Your task to perform on an android device: Is it going to rain this weekend? Image 0: 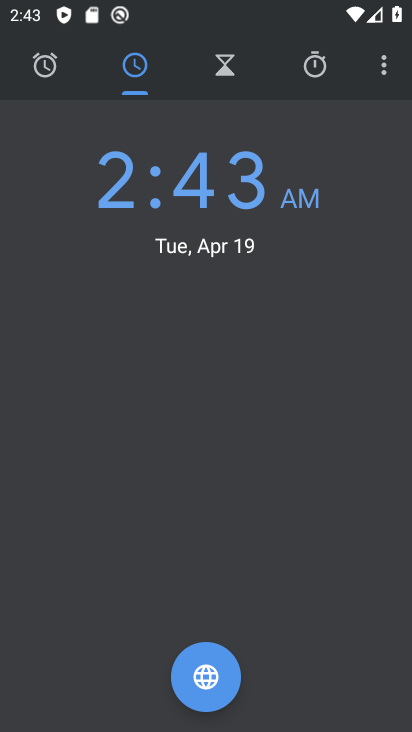
Step 0: press home button
Your task to perform on an android device: Is it going to rain this weekend? Image 1: 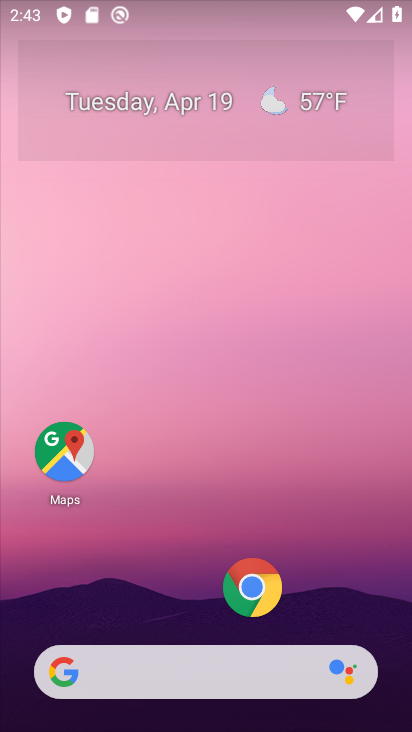
Step 1: click (323, 103)
Your task to perform on an android device: Is it going to rain this weekend? Image 2: 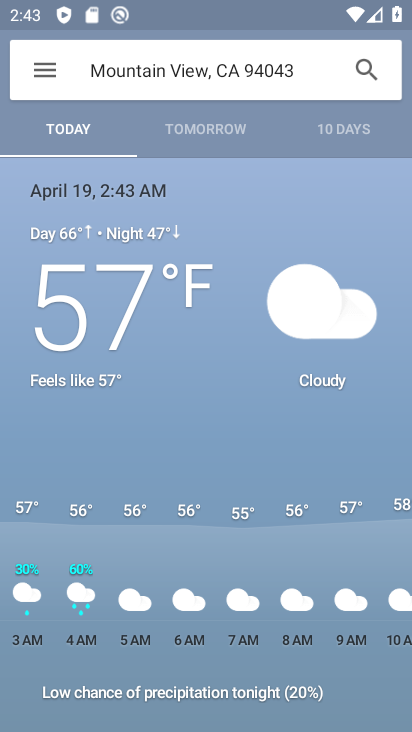
Step 2: click (326, 122)
Your task to perform on an android device: Is it going to rain this weekend? Image 3: 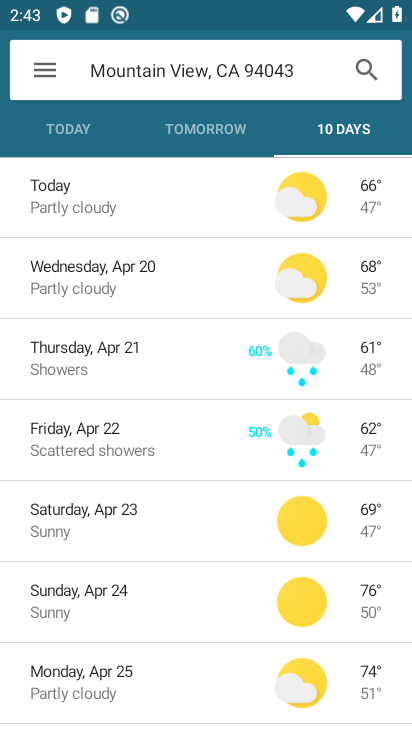
Step 3: task complete